Your task to perform on an android device: Open sound settings Image 0: 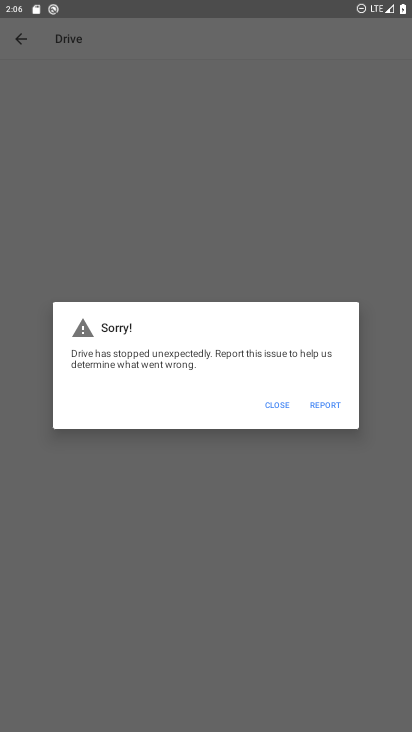
Step 0: press home button
Your task to perform on an android device: Open sound settings Image 1: 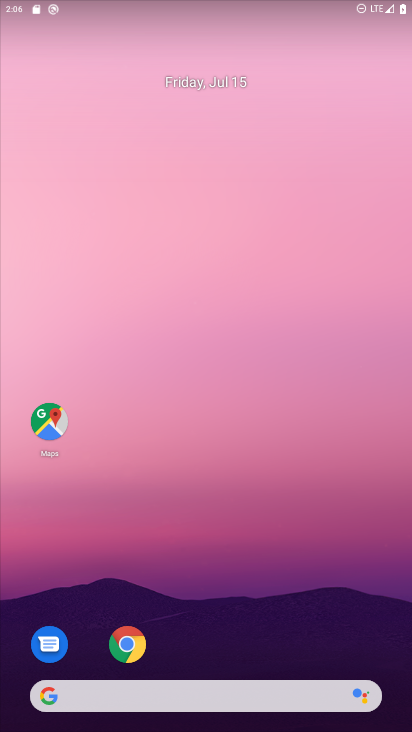
Step 1: drag from (75, 519) to (267, 65)
Your task to perform on an android device: Open sound settings Image 2: 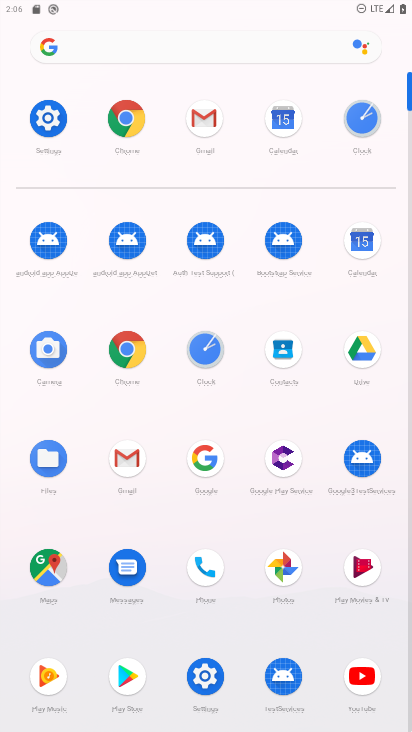
Step 2: click (59, 118)
Your task to perform on an android device: Open sound settings Image 3: 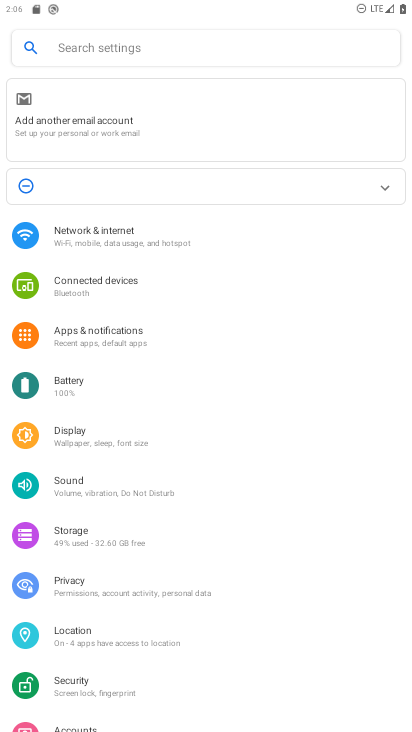
Step 3: drag from (8, 612) to (131, 261)
Your task to perform on an android device: Open sound settings Image 4: 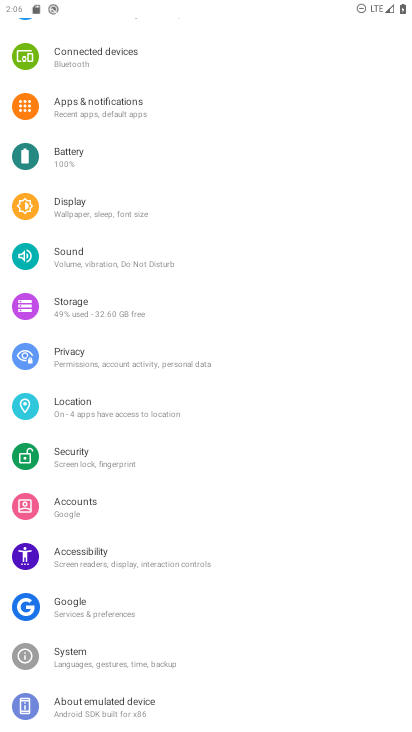
Step 4: click (117, 259)
Your task to perform on an android device: Open sound settings Image 5: 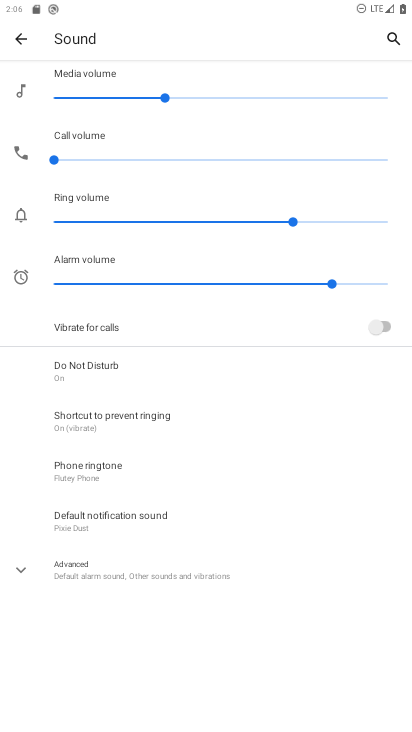
Step 5: task complete